Your task to perform on an android device: What's on my calendar today? Image 0: 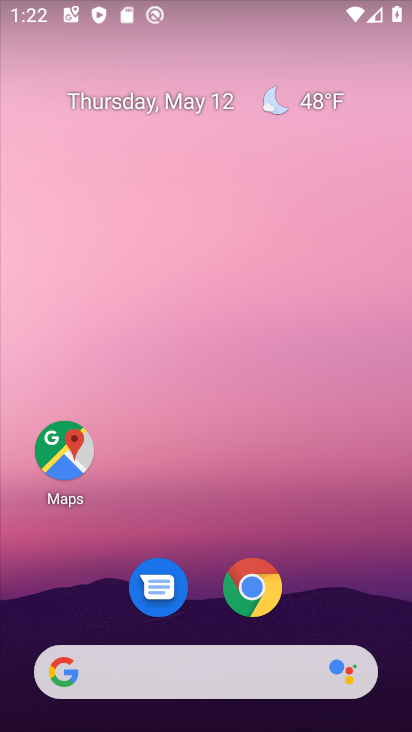
Step 0: drag from (257, 619) to (324, 124)
Your task to perform on an android device: What's on my calendar today? Image 1: 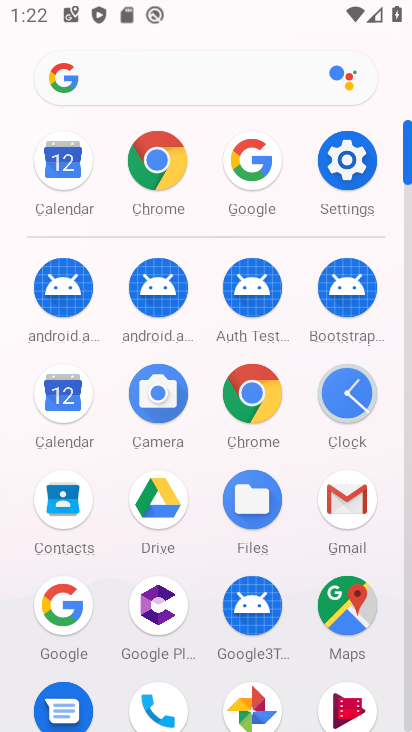
Step 1: click (86, 410)
Your task to perform on an android device: What's on my calendar today? Image 2: 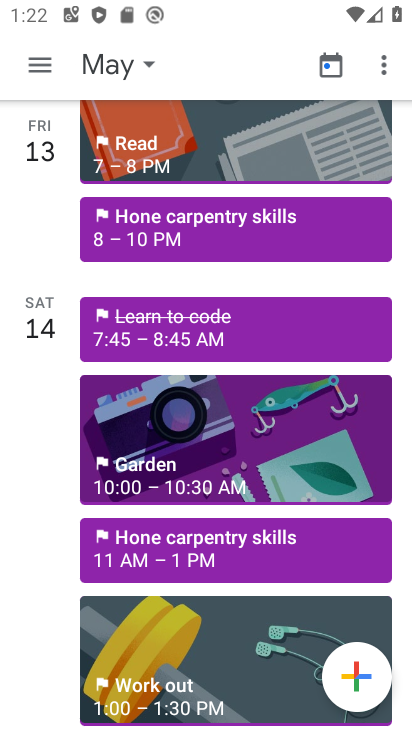
Step 2: task complete